Your task to perform on an android device: Open Wikipedia Image 0: 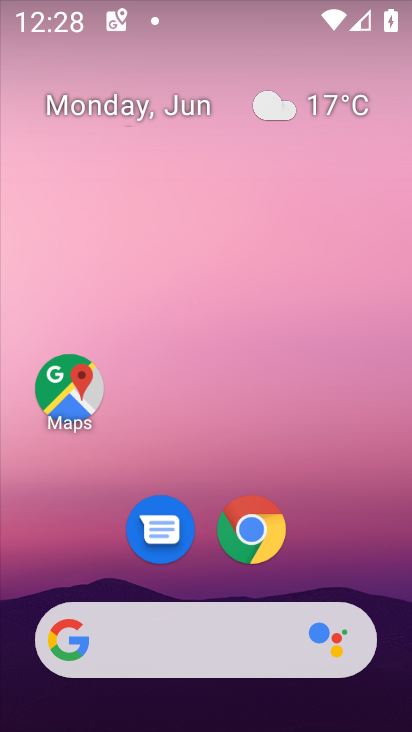
Step 0: drag from (322, 544) to (211, 1)
Your task to perform on an android device: Open Wikipedia Image 1: 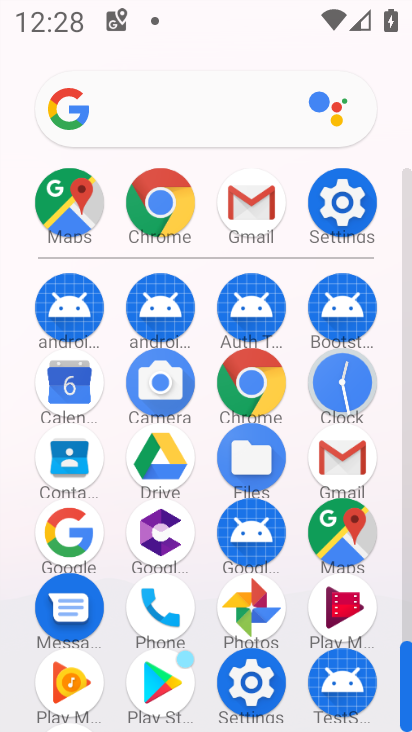
Step 1: click (154, 197)
Your task to perform on an android device: Open Wikipedia Image 2: 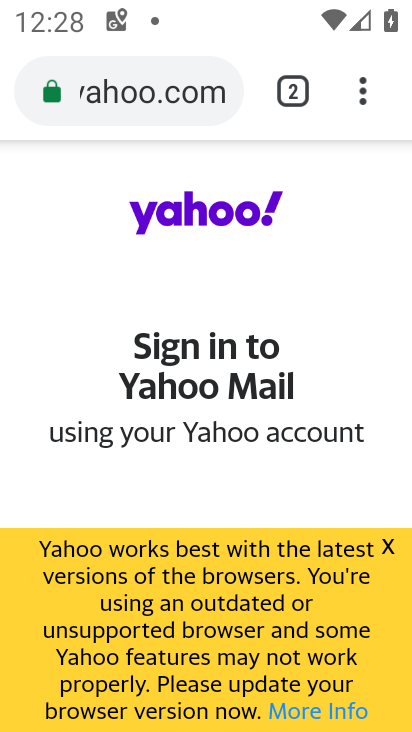
Step 2: click (191, 85)
Your task to perform on an android device: Open Wikipedia Image 3: 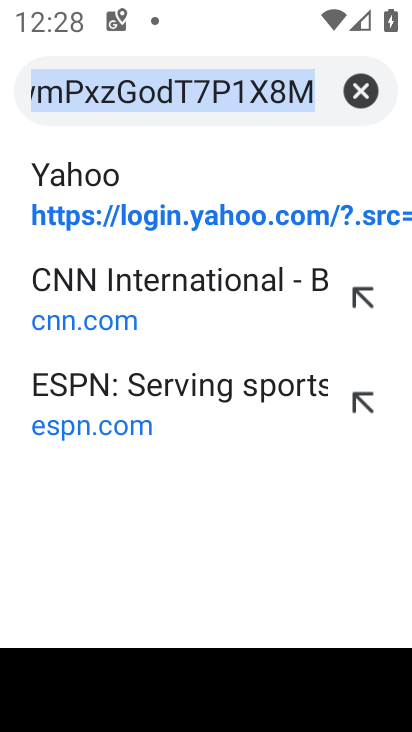
Step 3: click (367, 96)
Your task to perform on an android device: Open Wikipedia Image 4: 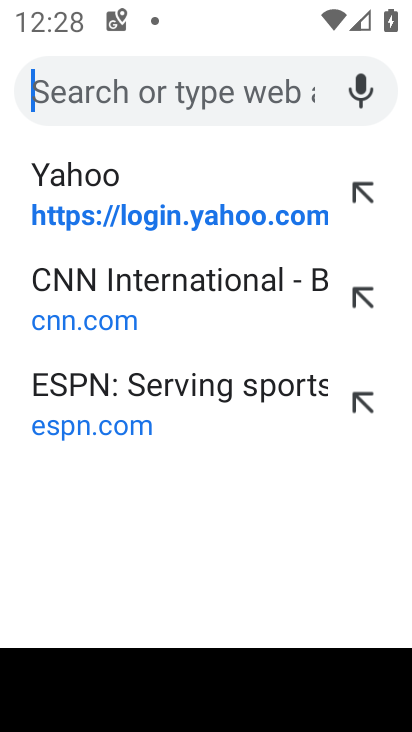
Step 4: type "wikipedia"
Your task to perform on an android device: Open Wikipedia Image 5: 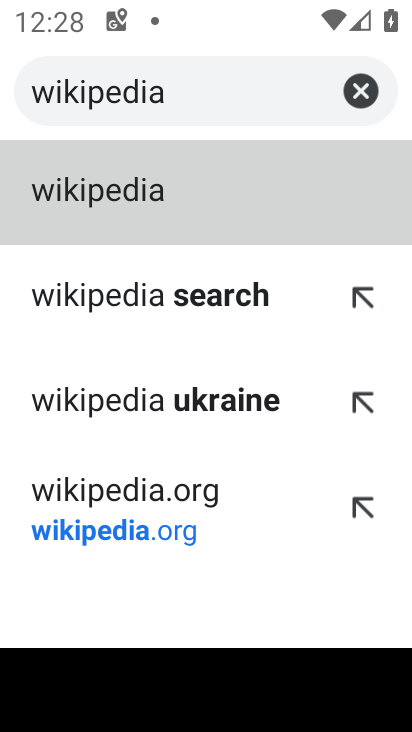
Step 5: click (143, 205)
Your task to perform on an android device: Open Wikipedia Image 6: 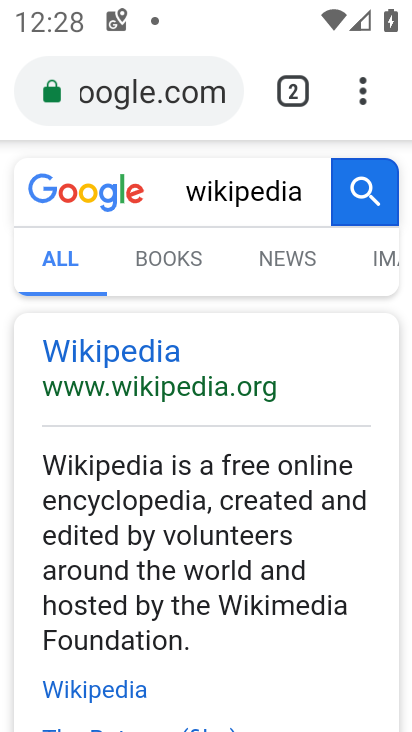
Step 6: click (107, 348)
Your task to perform on an android device: Open Wikipedia Image 7: 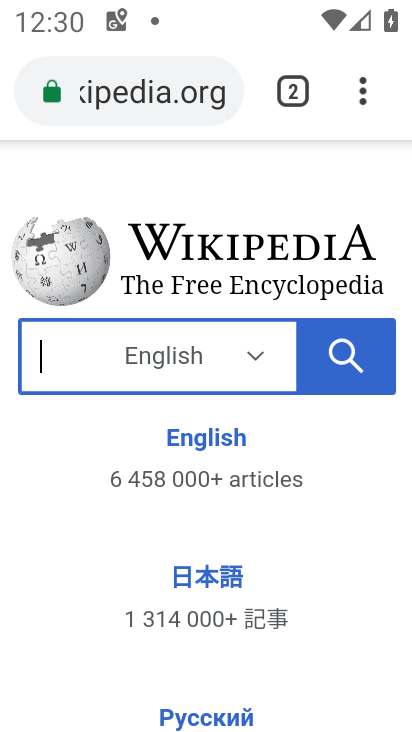
Step 7: task complete